Your task to perform on an android device: Is it going to rain tomorrow? Image 0: 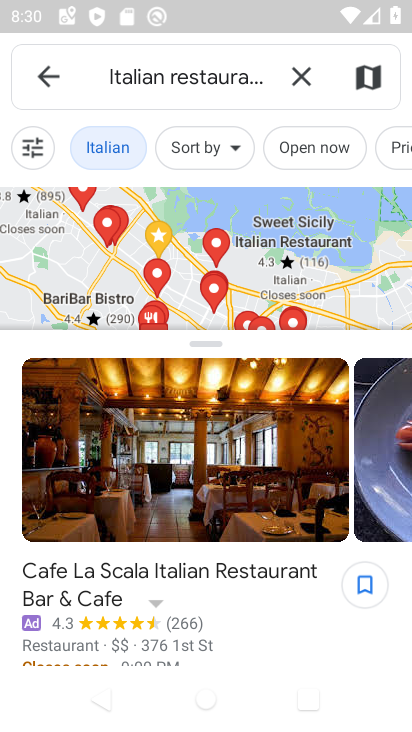
Step 0: press home button
Your task to perform on an android device: Is it going to rain tomorrow? Image 1: 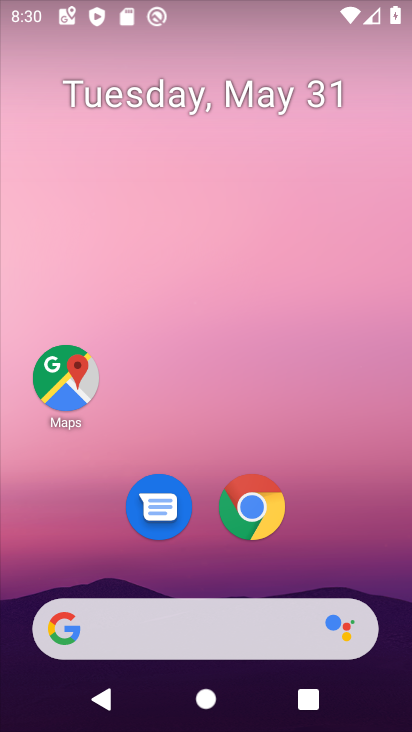
Step 1: click (207, 629)
Your task to perform on an android device: Is it going to rain tomorrow? Image 2: 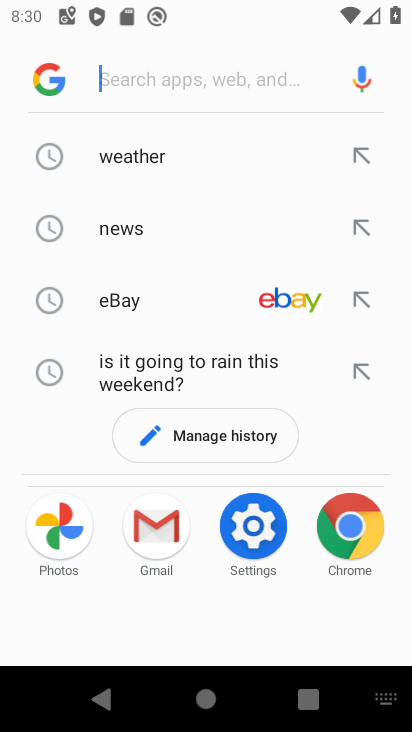
Step 2: click (164, 91)
Your task to perform on an android device: Is it going to rain tomorrow? Image 3: 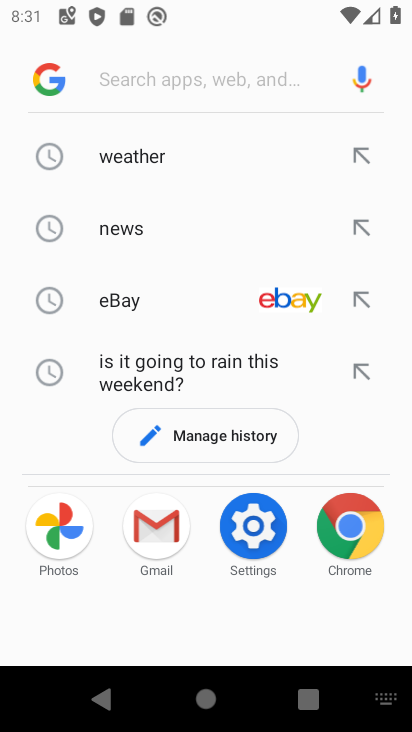
Step 3: type "weather"
Your task to perform on an android device: Is it going to rain tomorrow? Image 4: 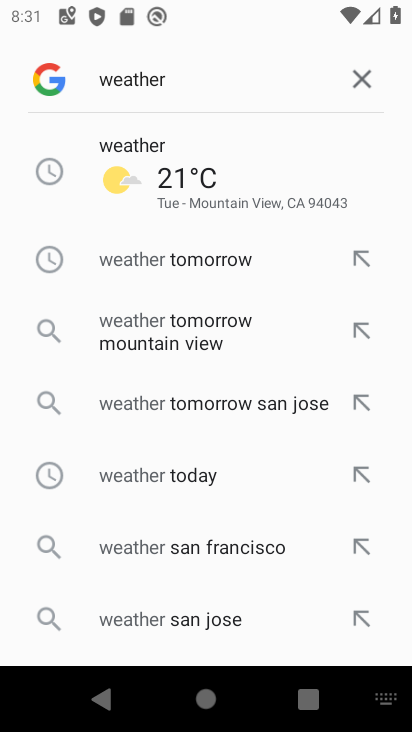
Step 4: click (161, 143)
Your task to perform on an android device: Is it going to rain tomorrow? Image 5: 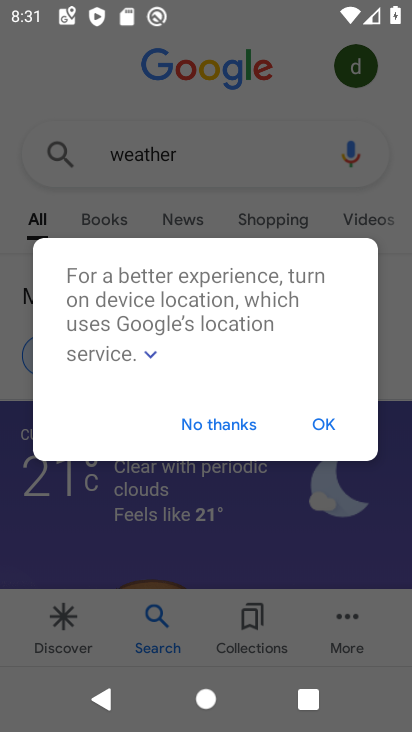
Step 5: click (326, 419)
Your task to perform on an android device: Is it going to rain tomorrow? Image 6: 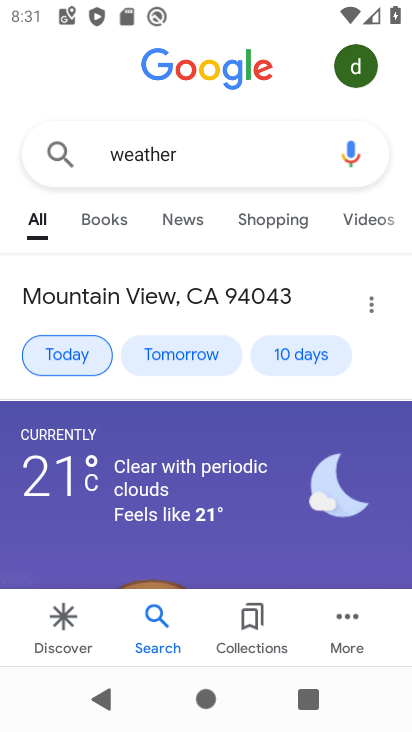
Step 6: drag from (214, 456) to (324, 41)
Your task to perform on an android device: Is it going to rain tomorrow? Image 7: 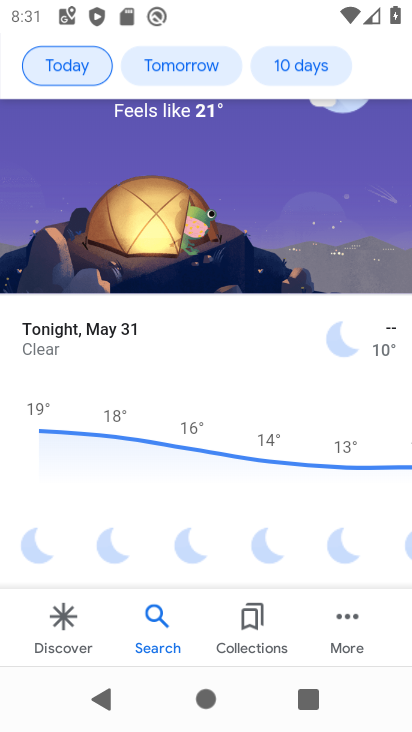
Step 7: drag from (152, 407) to (217, 46)
Your task to perform on an android device: Is it going to rain tomorrow? Image 8: 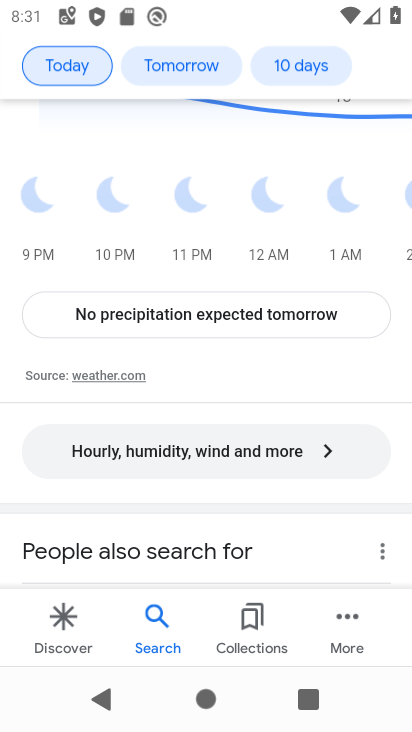
Step 8: drag from (142, 406) to (164, 586)
Your task to perform on an android device: Is it going to rain tomorrow? Image 9: 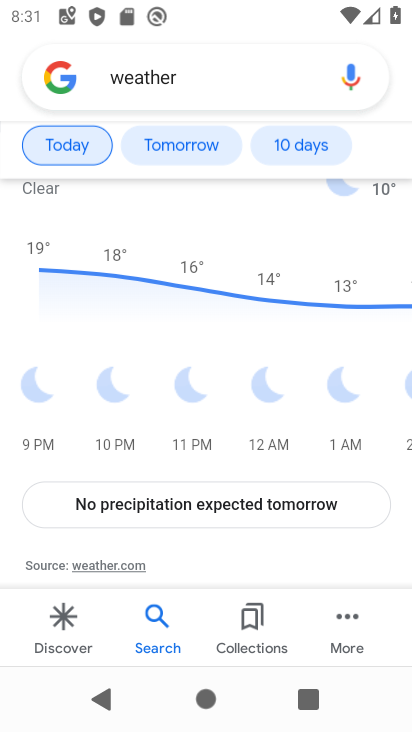
Step 9: click (214, 148)
Your task to perform on an android device: Is it going to rain tomorrow? Image 10: 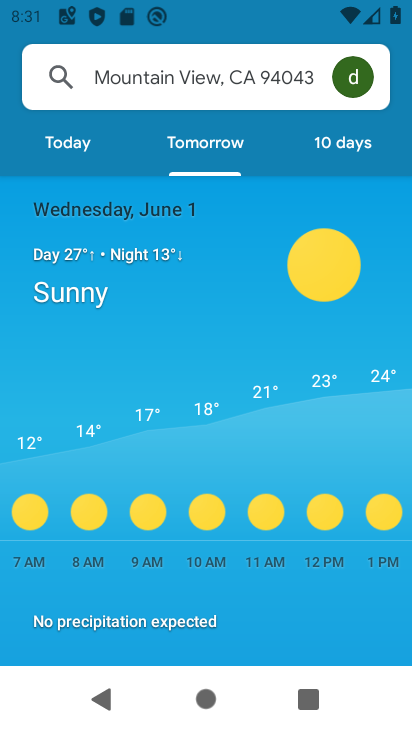
Step 10: task complete